Your task to perform on an android device: Open notification settings Image 0: 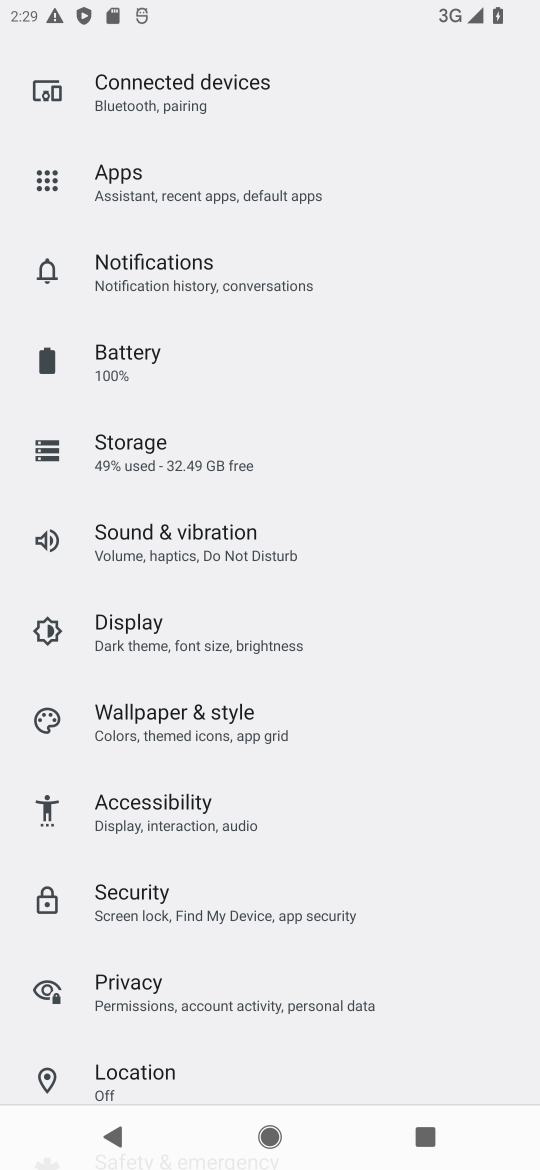
Step 0: task complete